Your task to perform on an android device: turn on wifi Image 0: 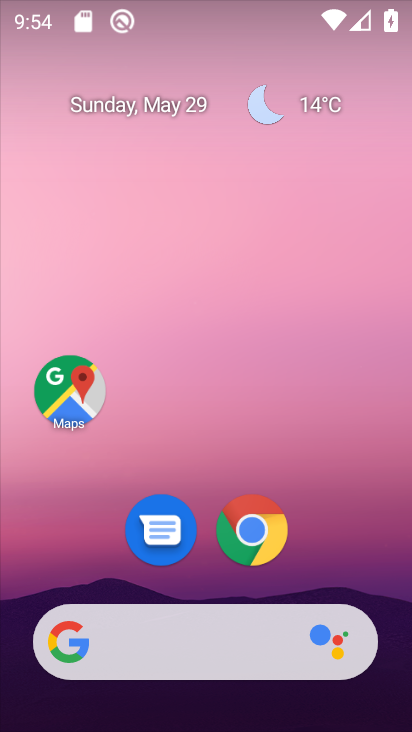
Step 0: drag from (249, 636) to (149, 5)
Your task to perform on an android device: turn on wifi Image 1: 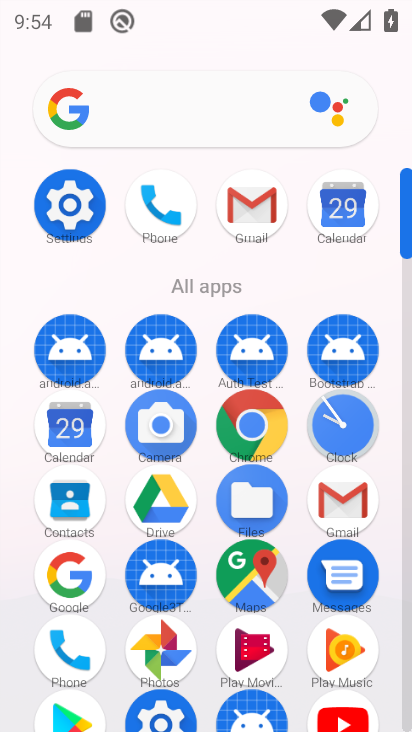
Step 1: click (80, 220)
Your task to perform on an android device: turn on wifi Image 2: 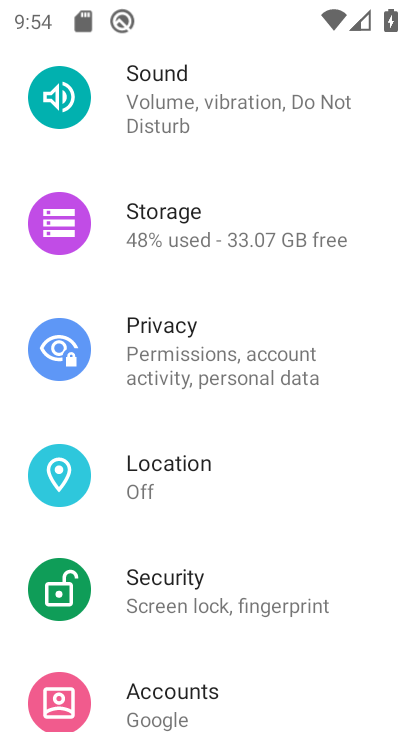
Step 2: drag from (206, 171) to (22, 651)
Your task to perform on an android device: turn on wifi Image 3: 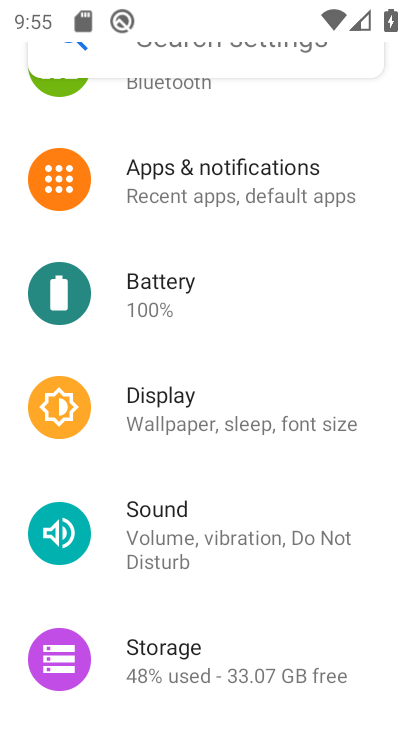
Step 3: drag from (261, 215) to (87, 699)
Your task to perform on an android device: turn on wifi Image 4: 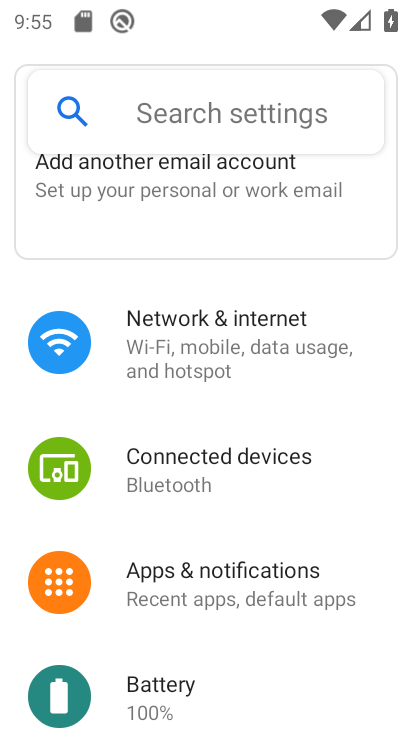
Step 4: click (227, 329)
Your task to perform on an android device: turn on wifi Image 5: 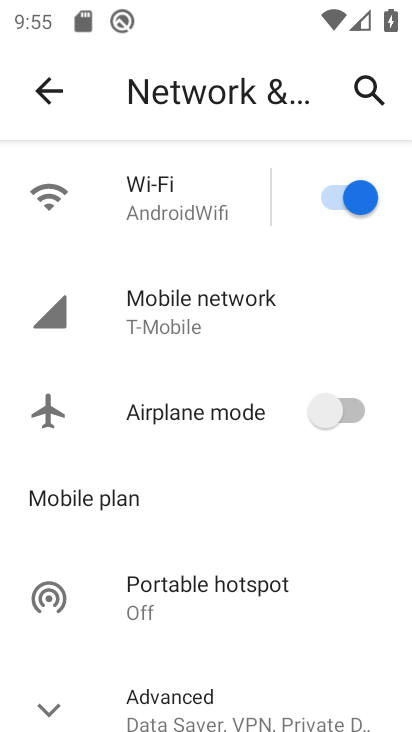
Step 5: task complete